Your task to perform on an android device: Go to Wikipedia Image 0: 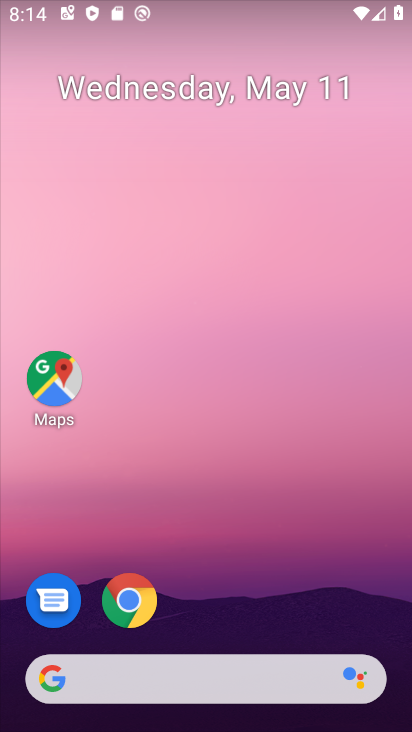
Step 0: drag from (236, 558) to (256, 50)
Your task to perform on an android device: Go to Wikipedia Image 1: 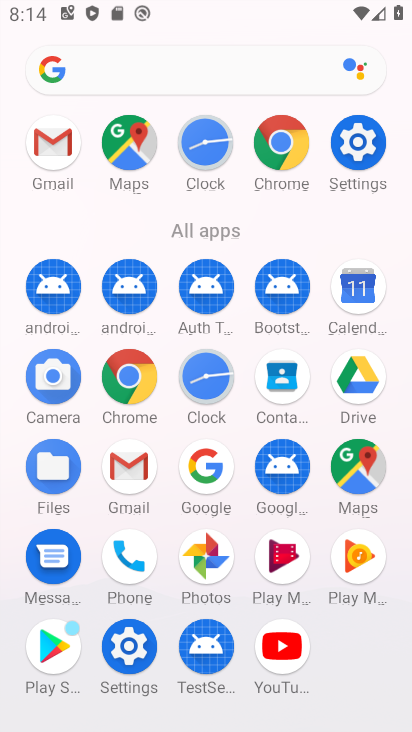
Step 1: click (201, 464)
Your task to perform on an android device: Go to Wikipedia Image 2: 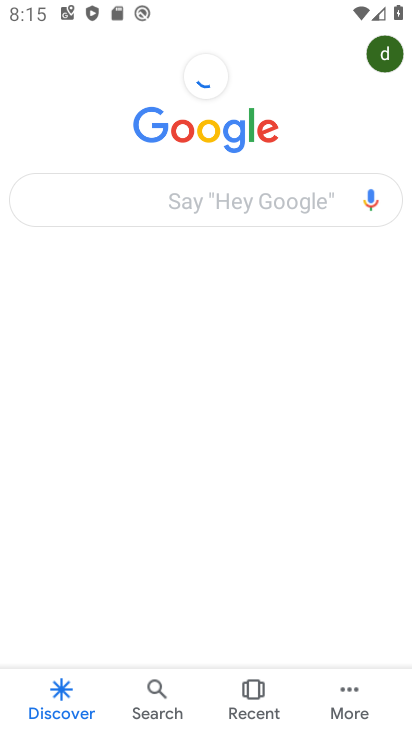
Step 2: click (202, 208)
Your task to perform on an android device: Go to Wikipedia Image 3: 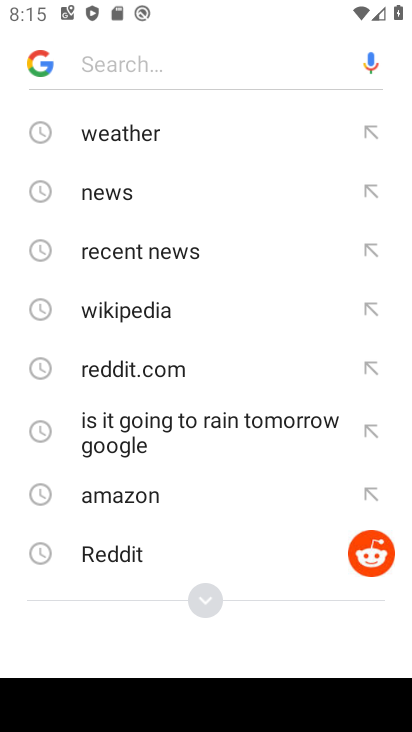
Step 3: click (116, 318)
Your task to perform on an android device: Go to Wikipedia Image 4: 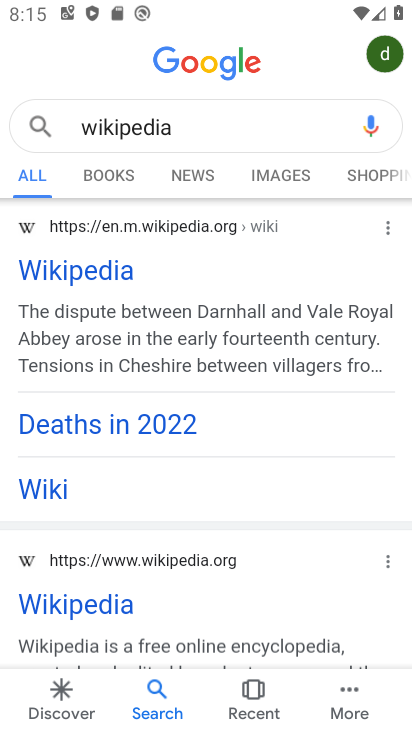
Step 4: click (100, 275)
Your task to perform on an android device: Go to Wikipedia Image 5: 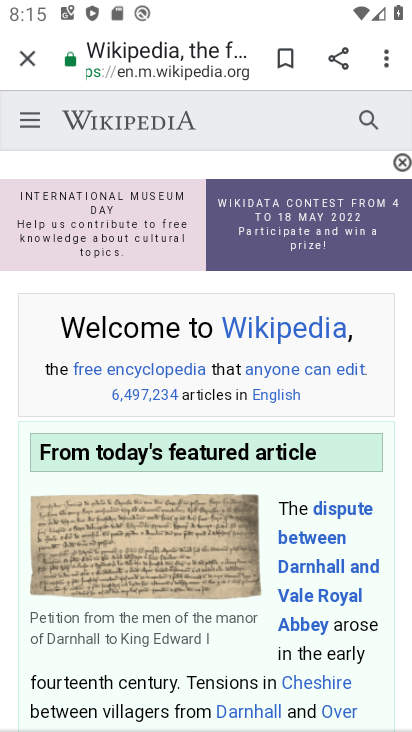
Step 5: task complete